Your task to perform on an android device: toggle data saver in the chrome app Image 0: 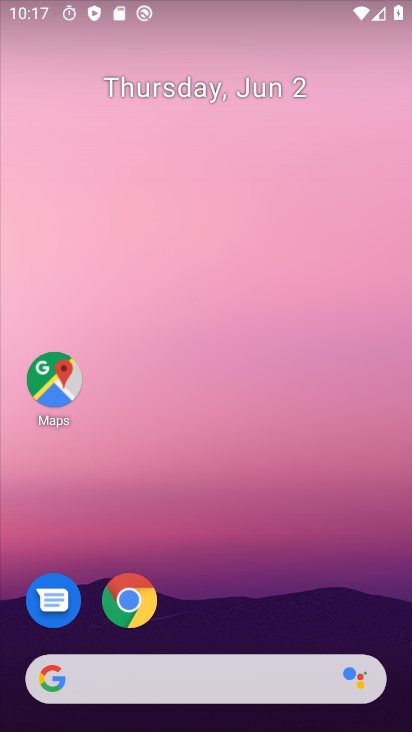
Step 0: click (128, 599)
Your task to perform on an android device: toggle data saver in the chrome app Image 1: 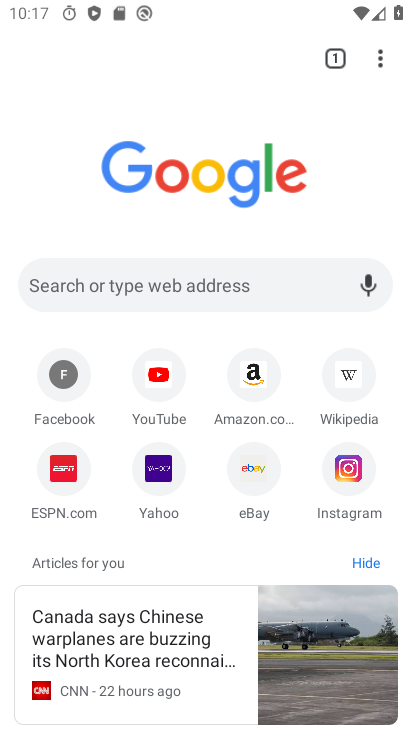
Step 1: click (374, 47)
Your task to perform on an android device: toggle data saver in the chrome app Image 2: 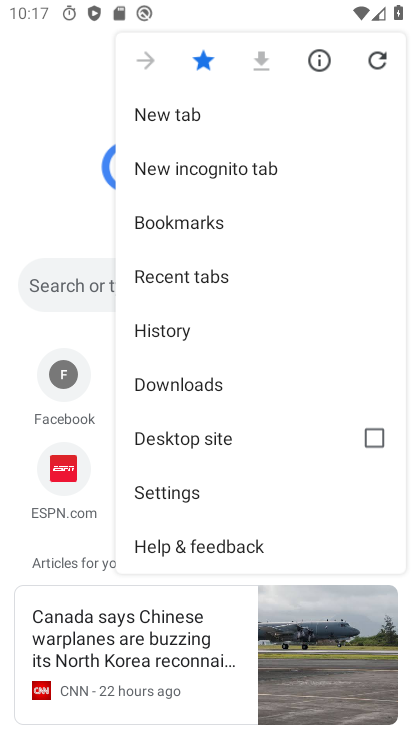
Step 2: click (205, 489)
Your task to perform on an android device: toggle data saver in the chrome app Image 3: 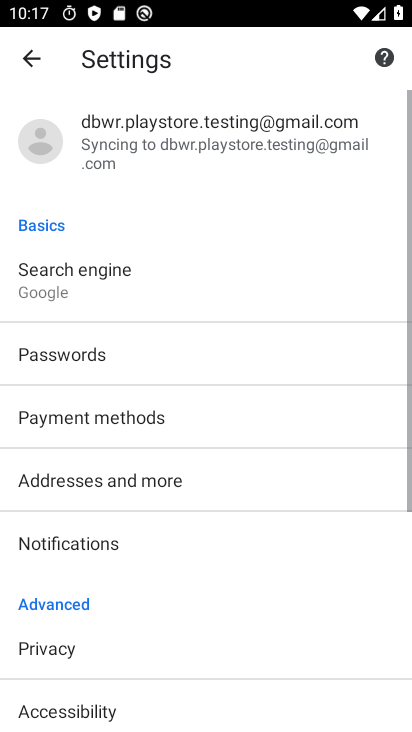
Step 3: drag from (190, 509) to (152, 151)
Your task to perform on an android device: toggle data saver in the chrome app Image 4: 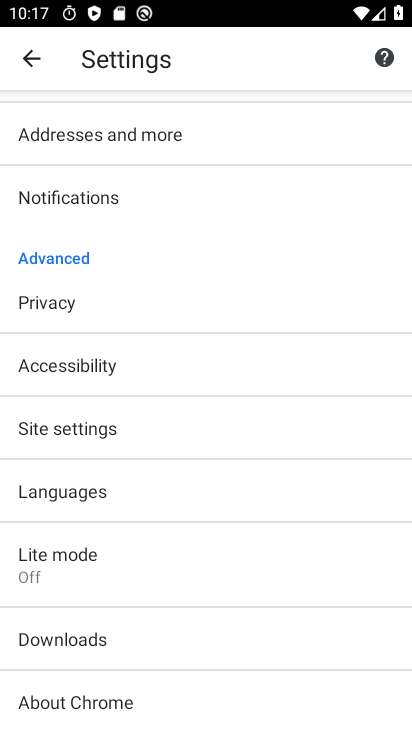
Step 4: click (95, 573)
Your task to perform on an android device: toggle data saver in the chrome app Image 5: 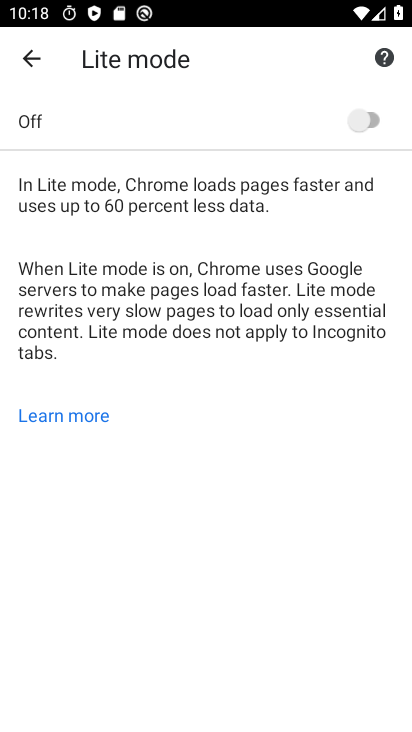
Step 5: task complete